Your task to perform on an android device: clear history in the chrome app Image 0: 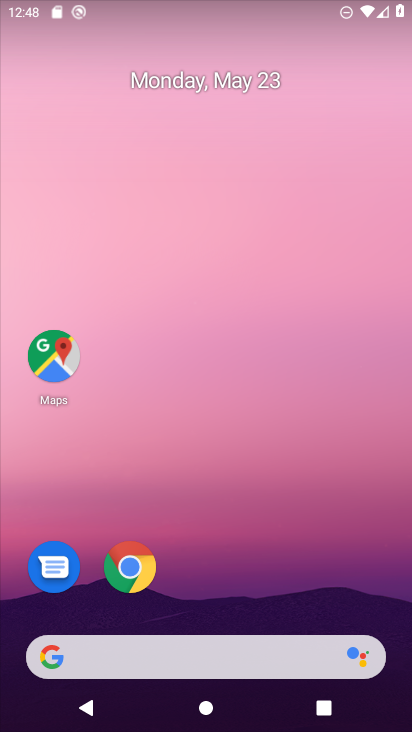
Step 0: click (130, 568)
Your task to perform on an android device: clear history in the chrome app Image 1: 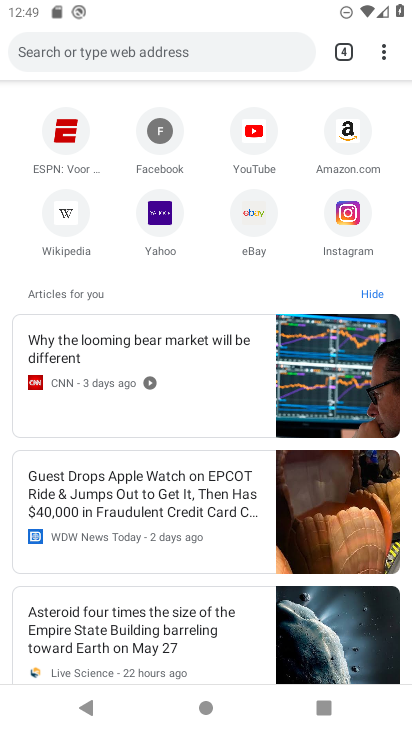
Step 1: click (391, 58)
Your task to perform on an android device: clear history in the chrome app Image 2: 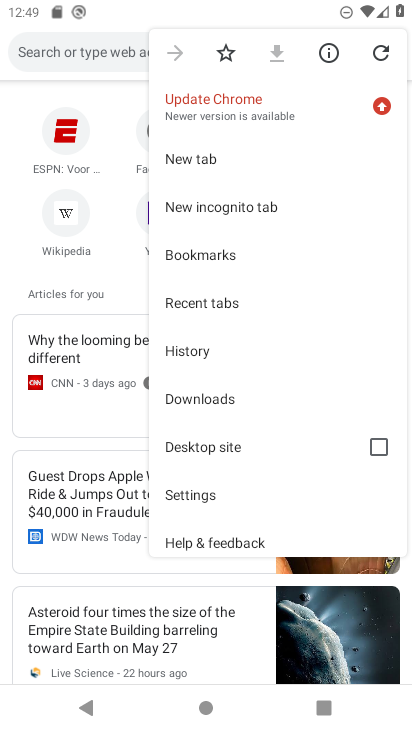
Step 2: click (203, 348)
Your task to perform on an android device: clear history in the chrome app Image 3: 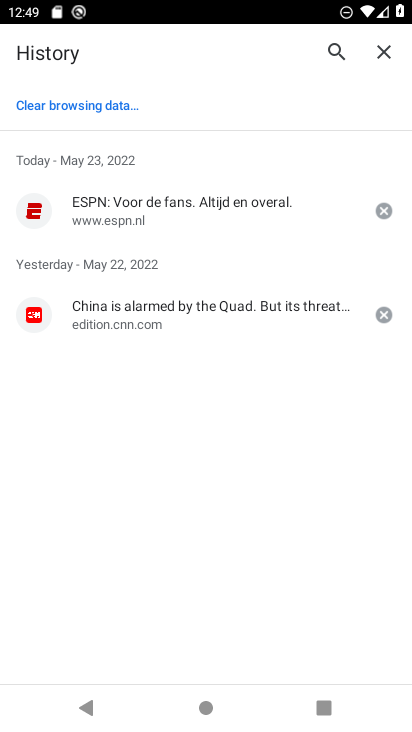
Step 3: click (86, 115)
Your task to perform on an android device: clear history in the chrome app Image 4: 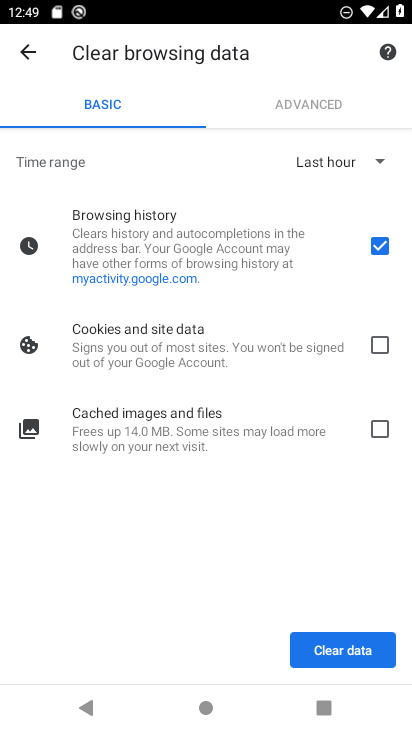
Step 4: click (358, 655)
Your task to perform on an android device: clear history in the chrome app Image 5: 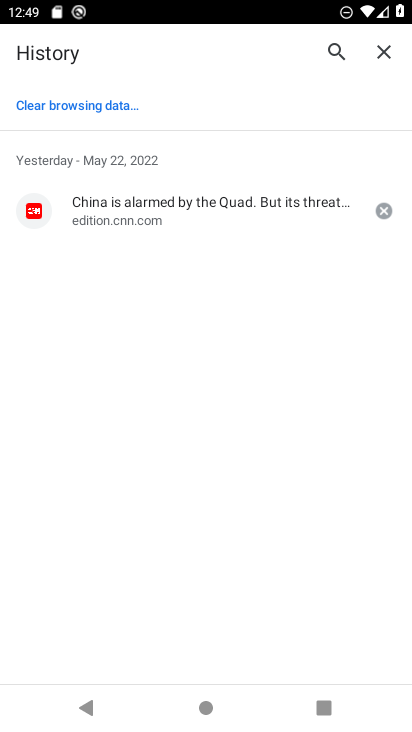
Step 5: task complete